Your task to perform on an android device: move an email to a new category in the gmail app Image 0: 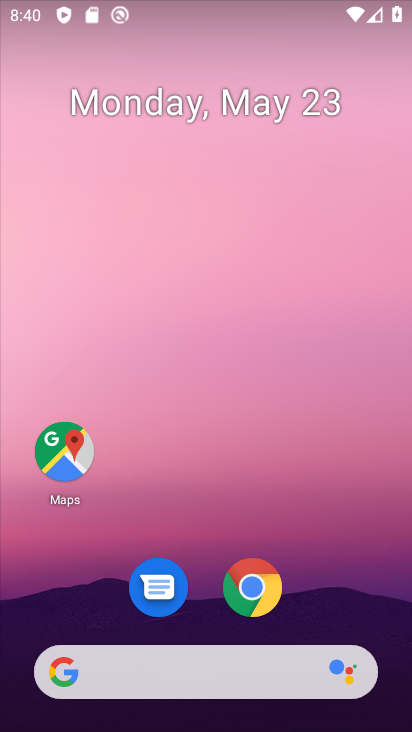
Step 0: drag from (349, 570) to (272, 15)
Your task to perform on an android device: move an email to a new category in the gmail app Image 1: 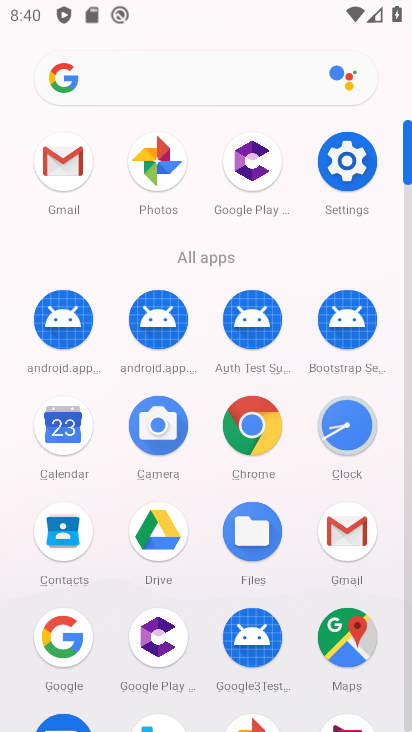
Step 1: click (81, 165)
Your task to perform on an android device: move an email to a new category in the gmail app Image 2: 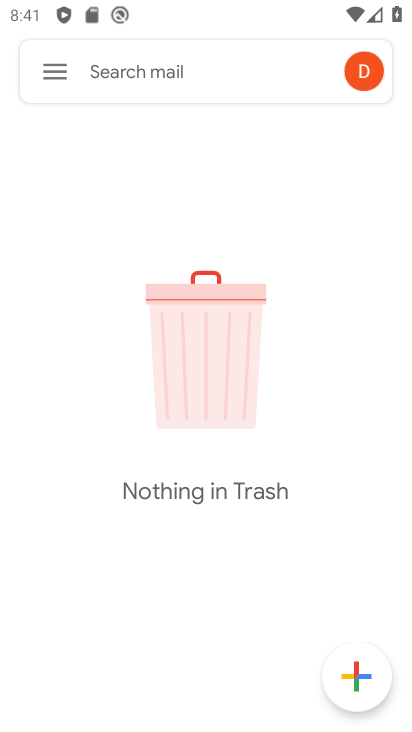
Step 2: click (61, 80)
Your task to perform on an android device: move an email to a new category in the gmail app Image 3: 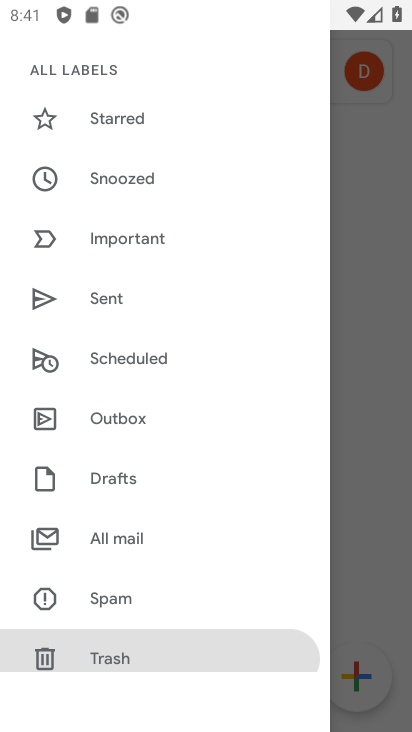
Step 3: click (119, 540)
Your task to perform on an android device: move an email to a new category in the gmail app Image 4: 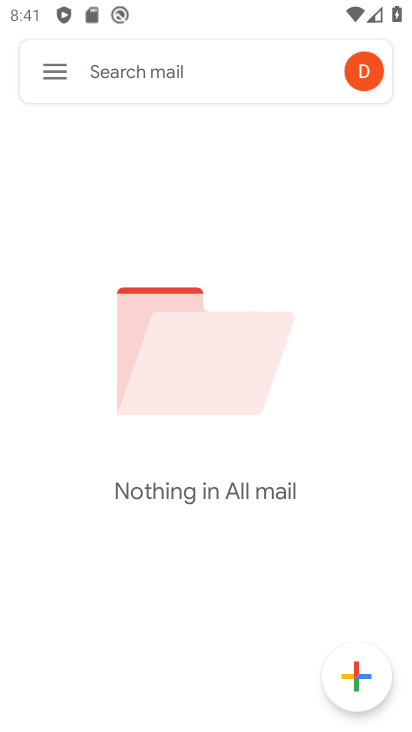
Step 4: task complete